Your task to perform on an android device: Open Reddit.com Image 0: 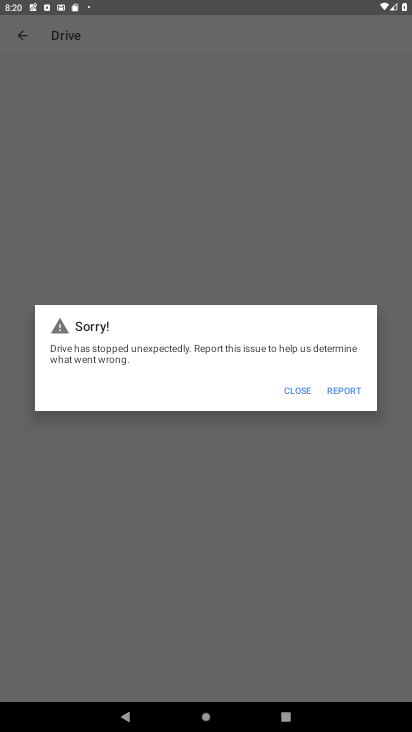
Step 0: press home button
Your task to perform on an android device: Open Reddit.com Image 1: 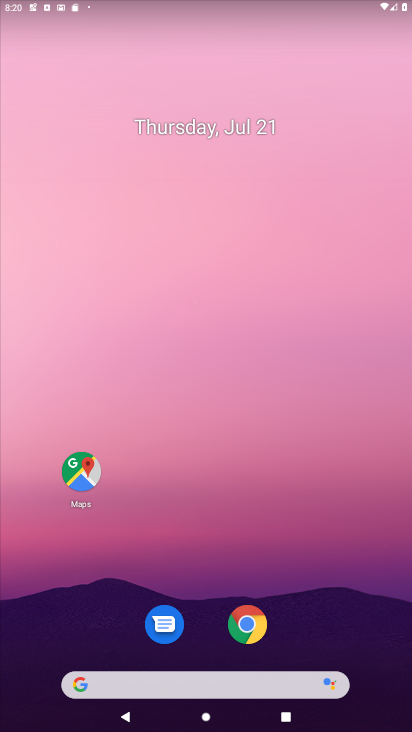
Step 1: click (150, 679)
Your task to perform on an android device: Open Reddit.com Image 2: 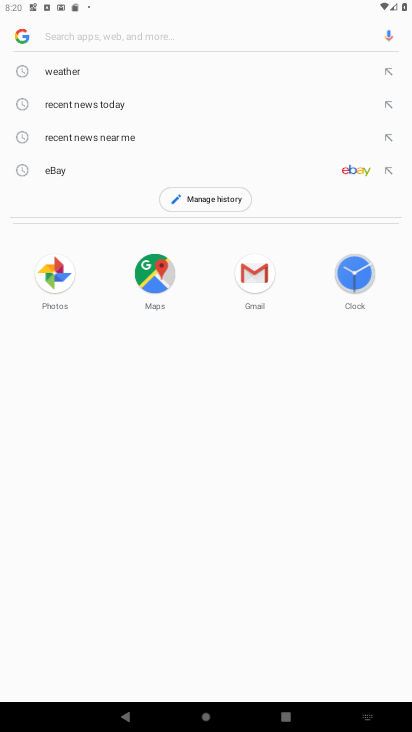
Step 2: click (114, 20)
Your task to perform on an android device: Open Reddit.com Image 3: 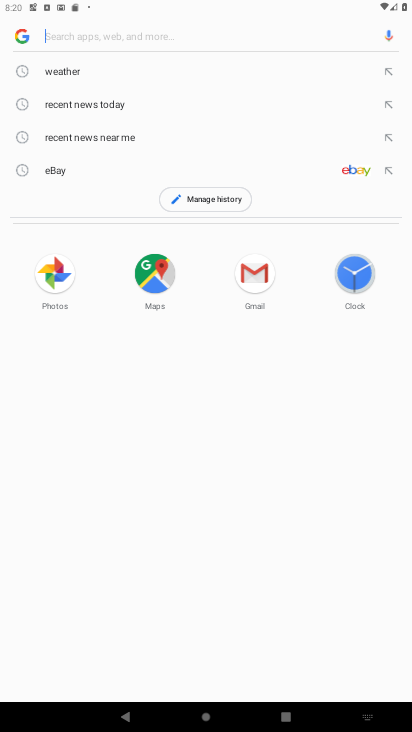
Step 3: type "Reddit.com"
Your task to perform on an android device: Open Reddit.com Image 4: 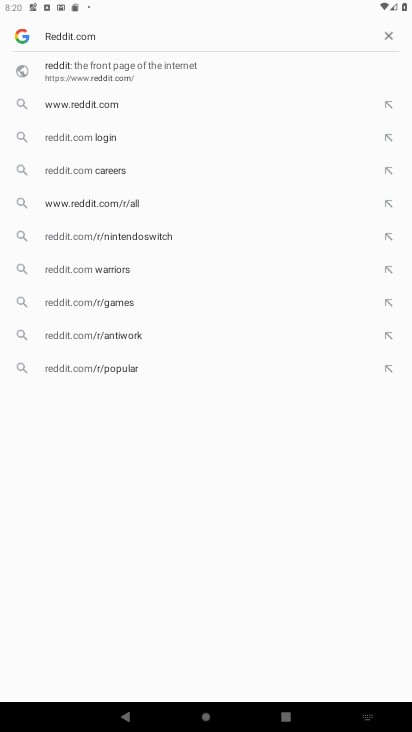
Step 4: click (134, 100)
Your task to perform on an android device: Open Reddit.com Image 5: 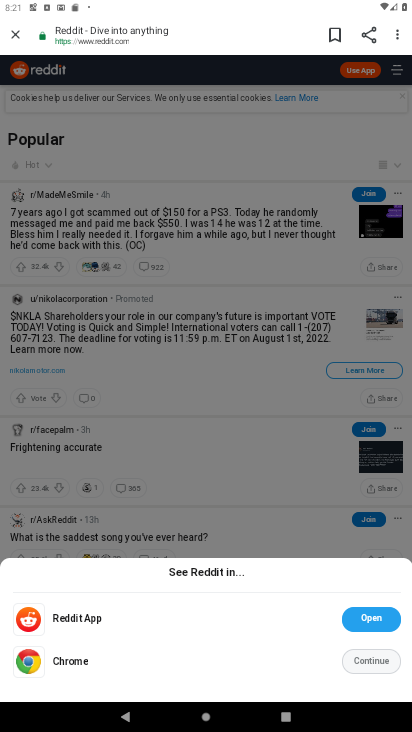
Step 5: task complete